Your task to perform on an android device: turn on translation in the chrome app Image 0: 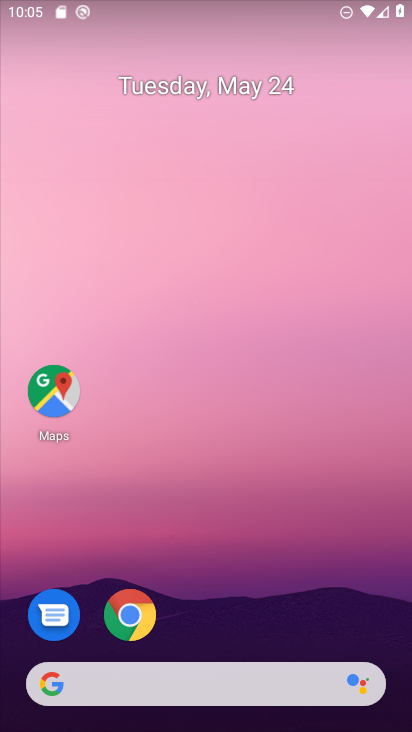
Step 0: drag from (377, 634) to (388, 319)
Your task to perform on an android device: turn on translation in the chrome app Image 1: 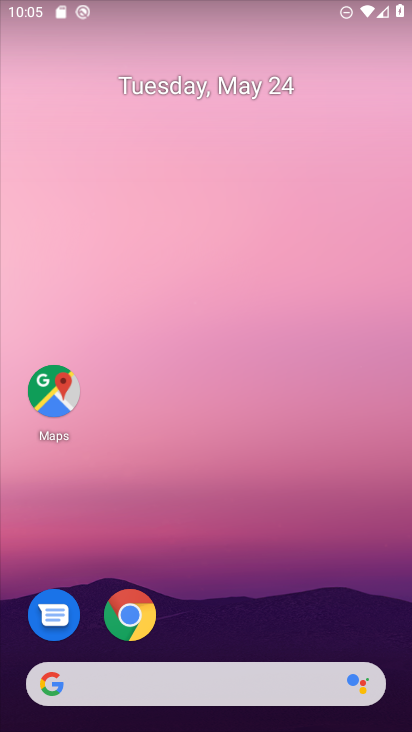
Step 1: drag from (383, 631) to (383, 276)
Your task to perform on an android device: turn on translation in the chrome app Image 2: 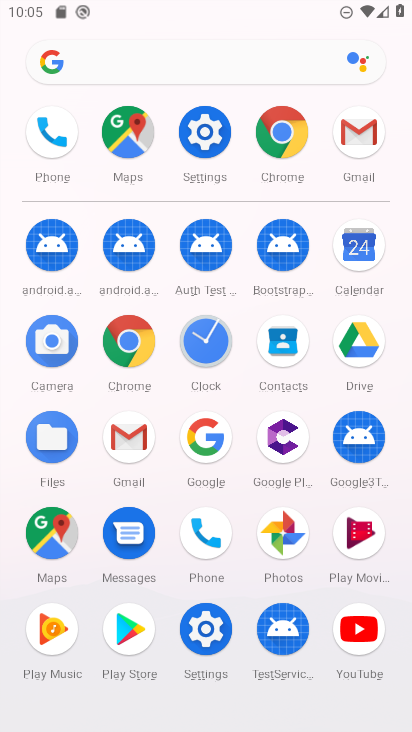
Step 2: click (128, 359)
Your task to perform on an android device: turn on translation in the chrome app Image 3: 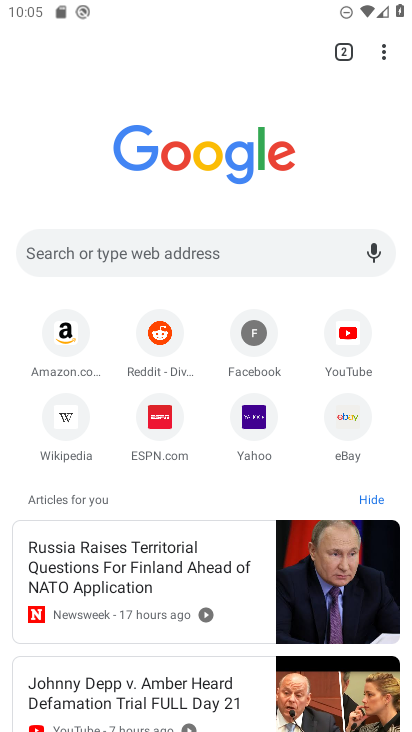
Step 3: click (385, 52)
Your task to perform on an android device: turn on translation in the chrome app Image 4: 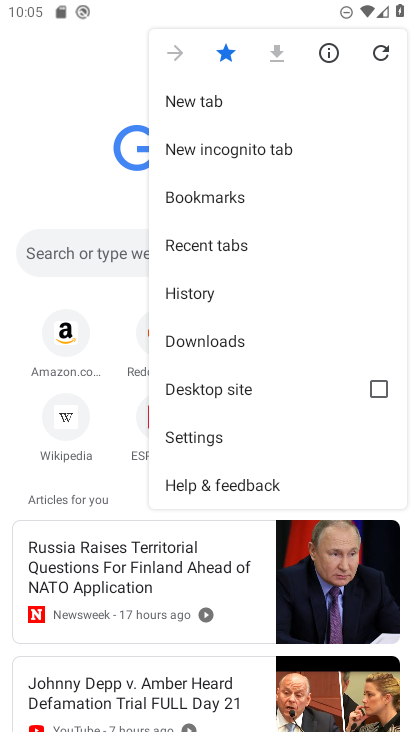
Step 4: click (212, 441)
Your task to perform on an android device: turn on translation in the chrome app Image 5: 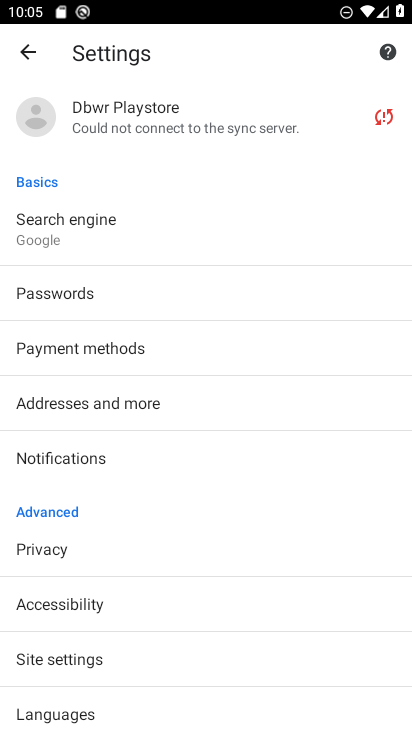
Step 5: drag from (284, 592) to (306, 429)
Your task to perform on an android device: turn on translation in the chrome app Image 6: 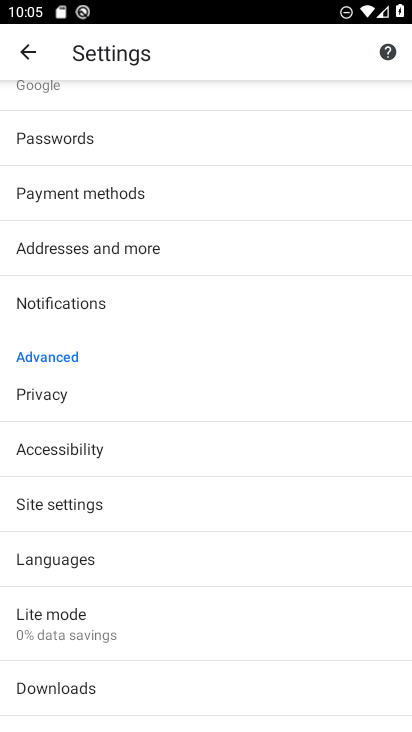
Step 6: drag from (272, 575) to (244, 441)
Your task to perform on an android device: turn on translation in the chrome app Image 7: 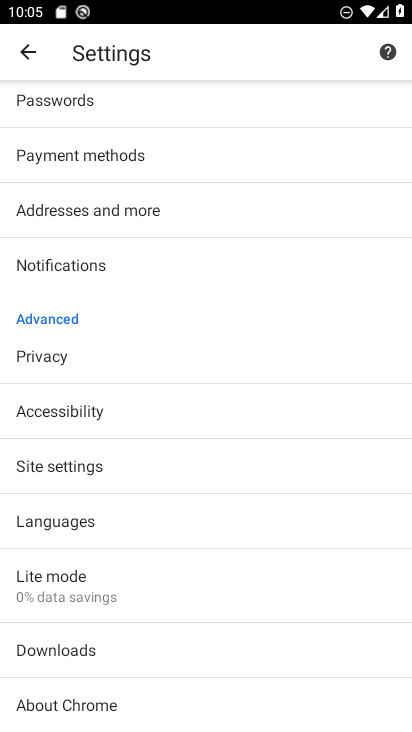
Step 7: drag from (285, 595) to (304, 456)
Your task to perform on an android device: turn on translation in the chrome app Image 8: 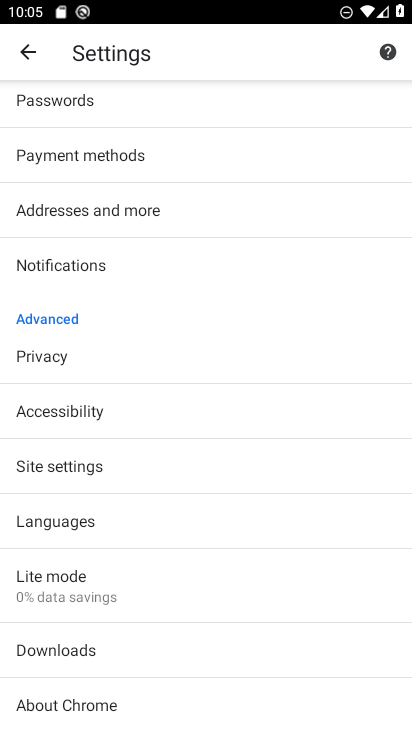
Step 8: click (237, 516)
Your task to perform on an android device: turn on translation in the chrome app Image 9: 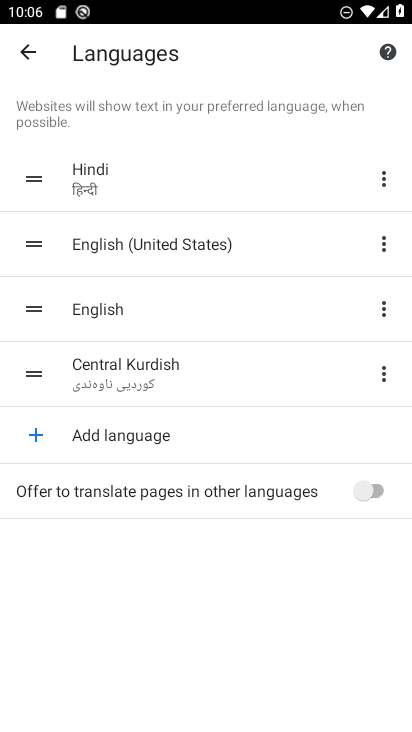
Step 9: click (371, 499)
Your task to perform on an android device: turn on translation in the chrome app Image 10: 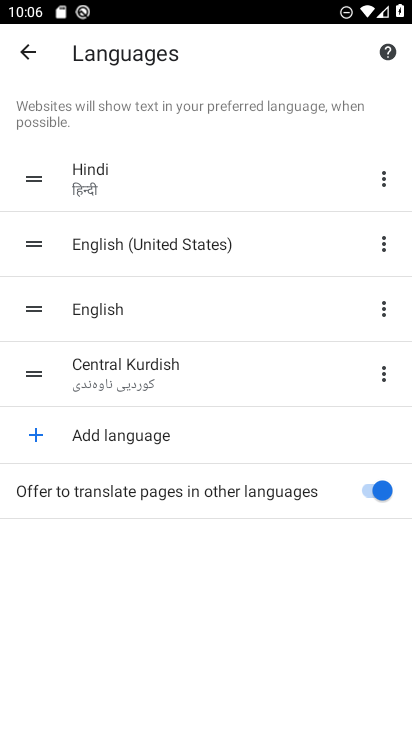
Step 10: task complete